Your task to perform on an android device: Open Google Maps and go to "Timeline" Image 0: 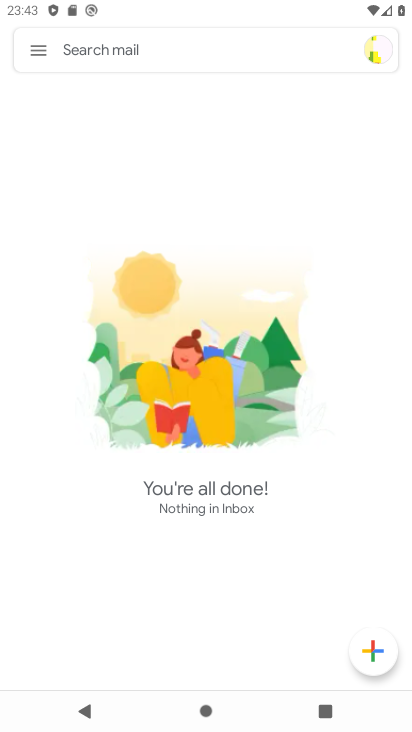
Step 0: press home button
Your task to perform on an android device: Open Google Maps and go to "Timeline" Image 1: 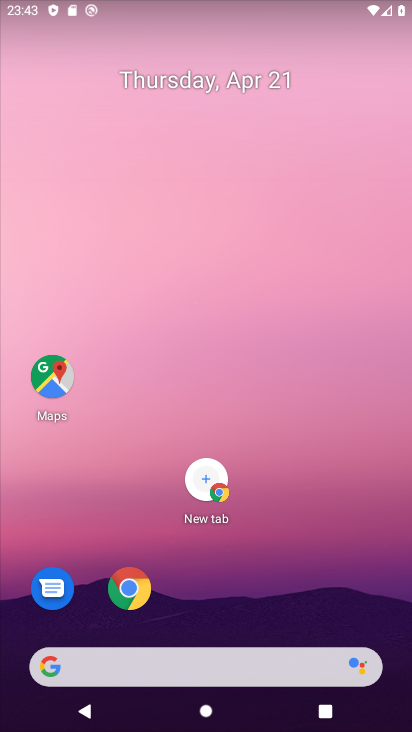
Step 1: click (32, 404)
Your task to perform on an android device: Open Google Maps and go to "Timeline" Image 2: 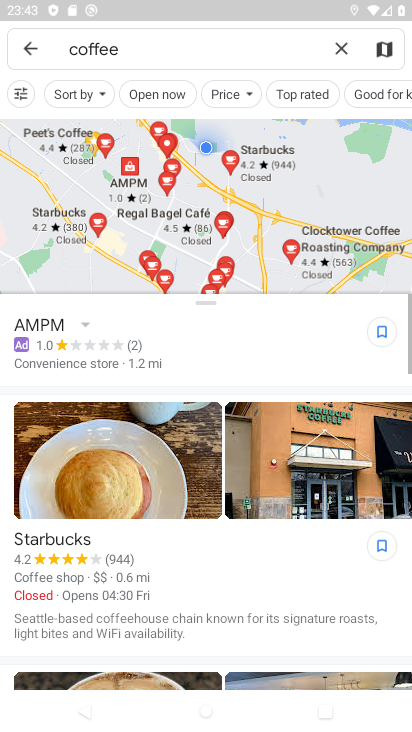
Step 2: click (33, 46)
Your task to perform on an android device: Open Google Maps and go to "Timeline" Image 3: 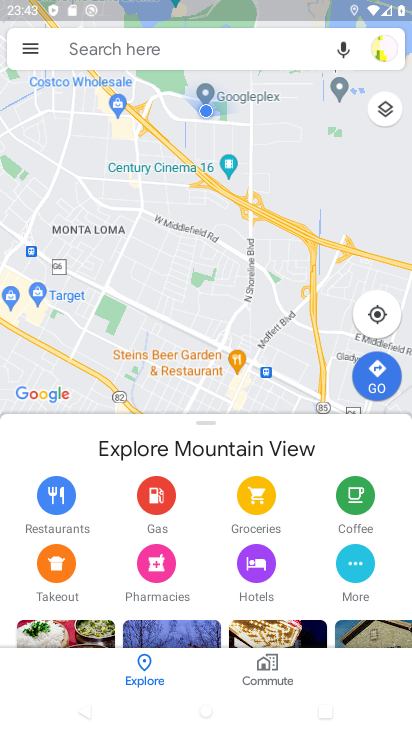
Step 3: click (35, 58)
Your task to perform on an android device: Open Google Maps and go to "Timeline" Image 4: 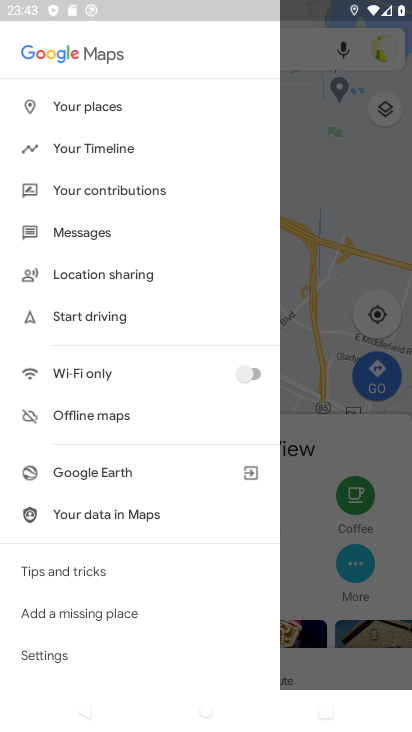
Step 4: click (89, 150)
Your task to perform on an android device: Open Google Maps and go to "Timeline" Image 5: 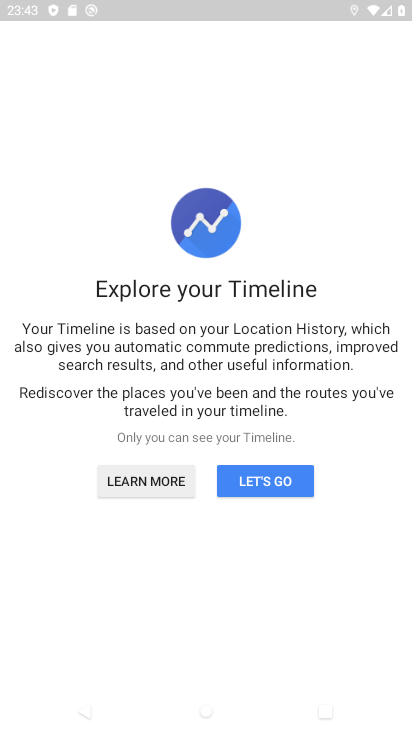
Step 5: click (273, 477)
Your task to perform on an android device: Open Google Maps and go to "Timeline" Image 6: 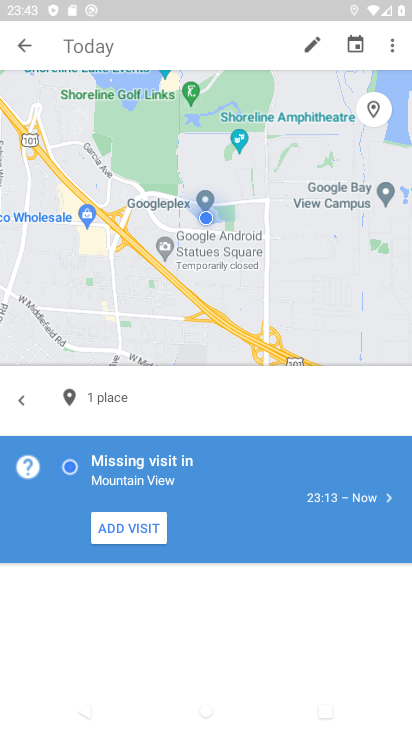
Step 6: task complete